Your task to perform on an android device: check android version Image 0: 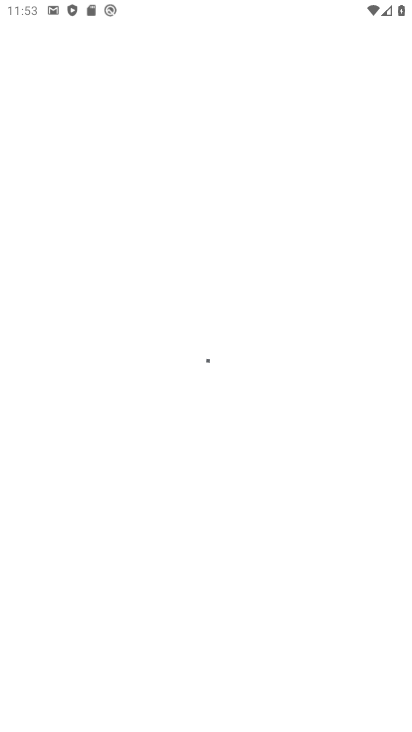
Step 0: press home button
Your task to perform on an android device: check android version Image 1: 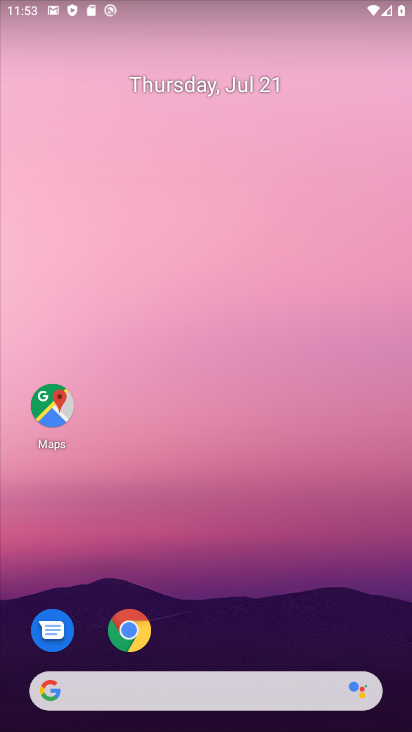
Step 1: drag from (306, 646) to (259, 102)
Your task to perform on an android device: check android version Image 2: 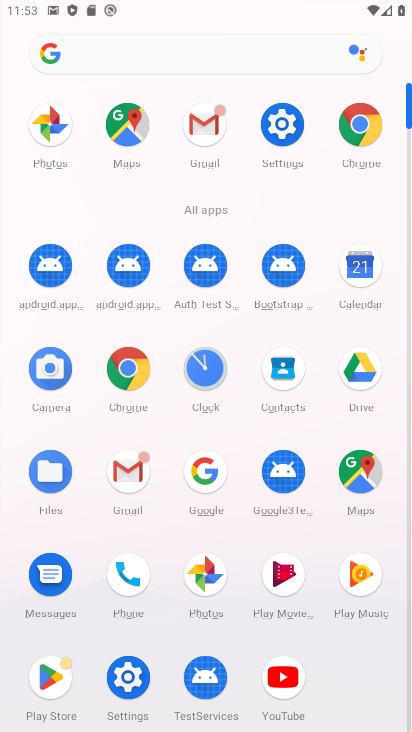
Step 2: click (282, 129)
Your task to perform on an android device: check android version Image 3: 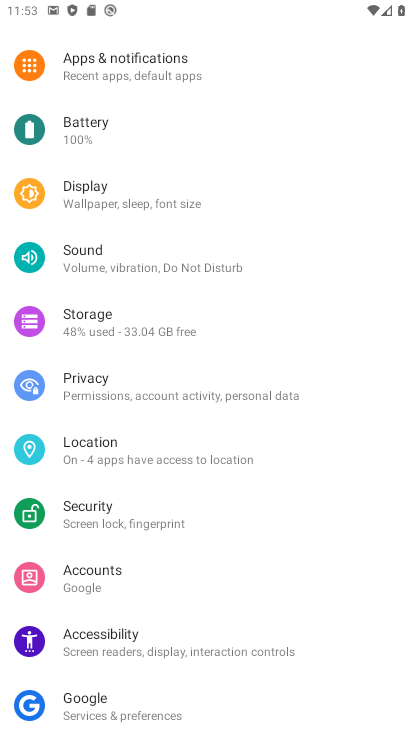
Step 3: drag from (316, 678) to (246, 266)
Your task to perform on an android device: check android version Image 4: 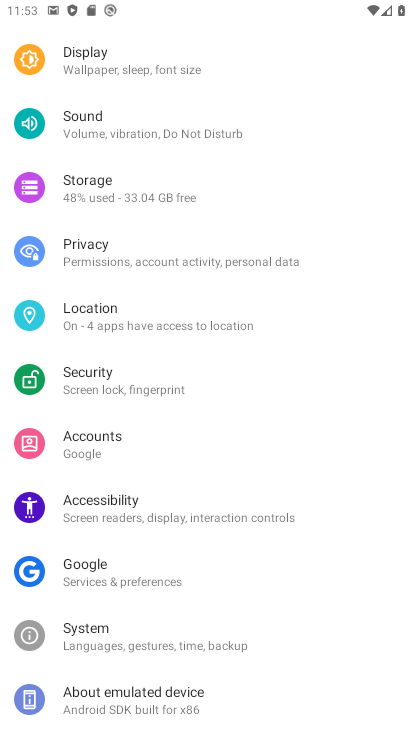
Step 4: click (289, 695)
Your task to perform on an android device: check android version Image 5: 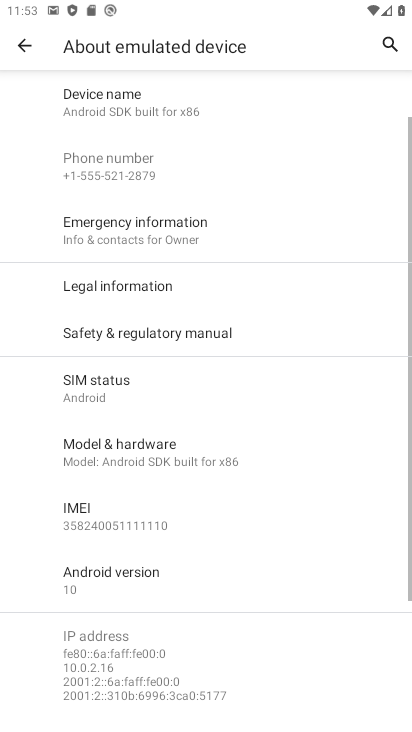
Step 5: task complete